Your task to perform on an android device: Open Google Maps and go to "Timeline" Image 0: 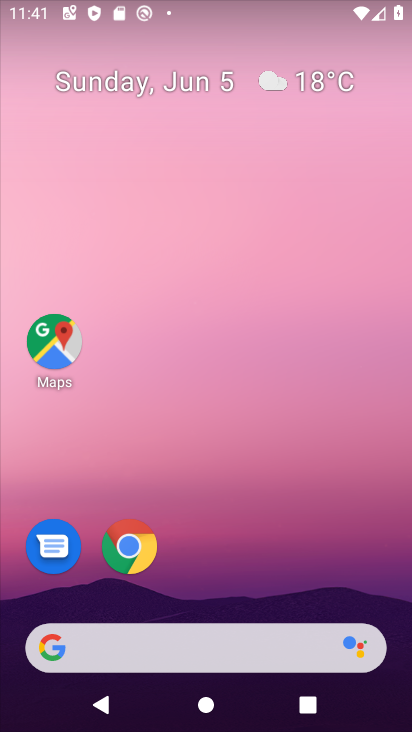
Step 0: click (54, 350)
Your task to perform on an android device: Open Google Maps and go to "Timeline" Image 1: 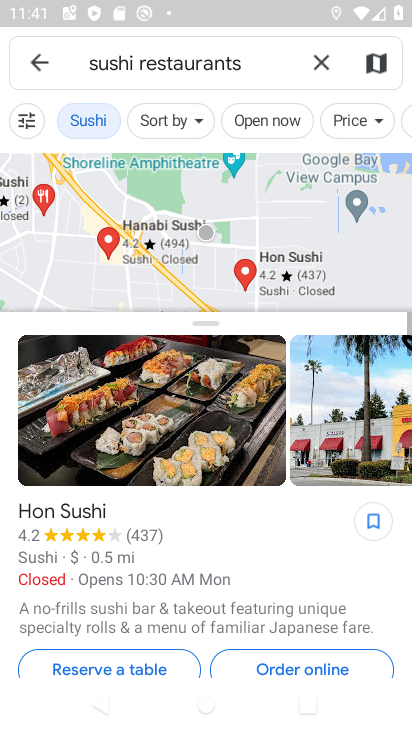
Step 1: click (32, 58)
Your task to perform on an android device: Open Google Maps and go to "Timeline" Image 2: 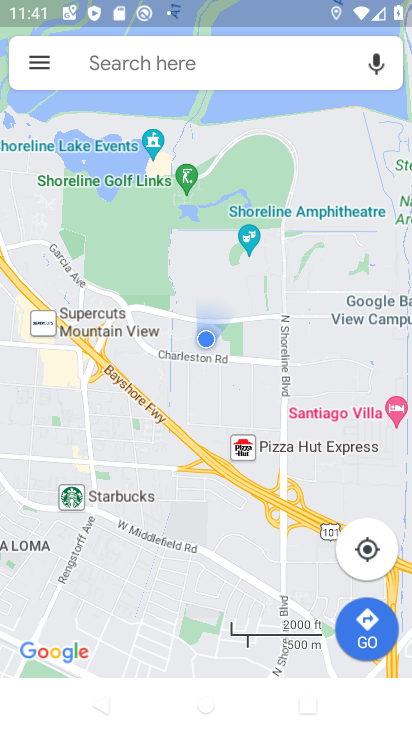
Step 2: click (37, 57)
Your task to perform on an android device: Open Google Maps and go to "Timeline" Image 3: 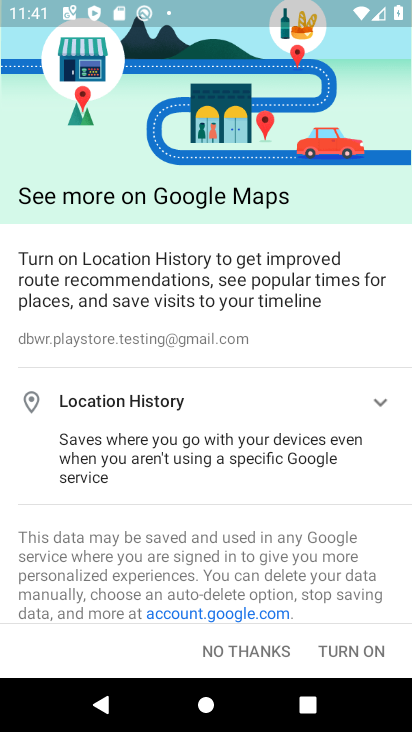
Step 3: click (280, 652)
Your task to perform on an android device: Open Google Maps and go to "Timeline" Image 4: 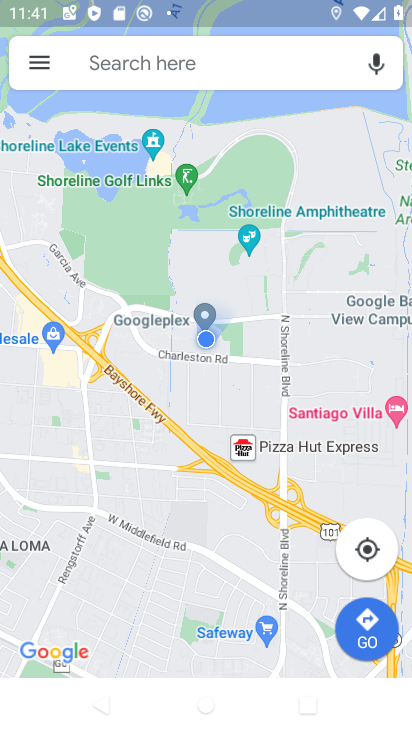
Step 4: click (41, 60)
Your task to perform on an android device: Open Google Maps and go to "Timeline" Image 5: 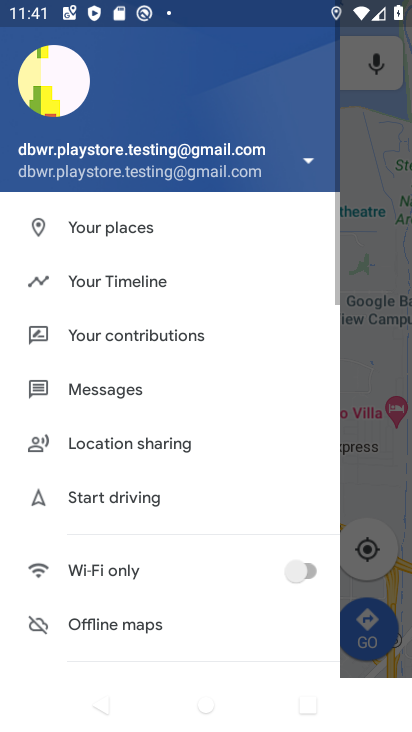
Step 5: click (137, 287)
Your task to perform on an android device: Open Google Maps and go to "Timeline" Image 6: 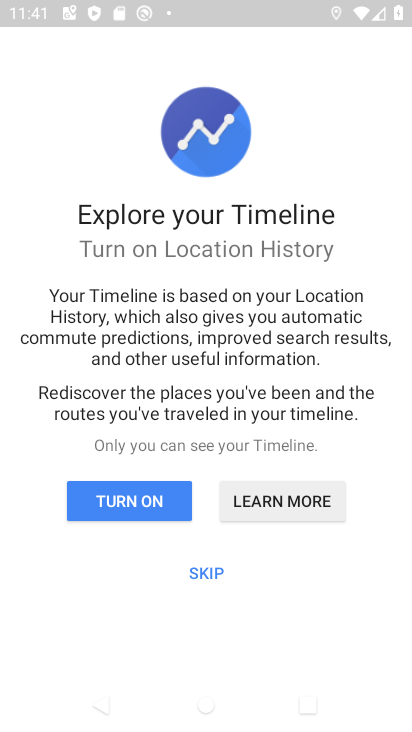
Step 6: click (206, 579)
Your task to perform on an android device: Open Google Maps and go to "Timeline" Image 7: 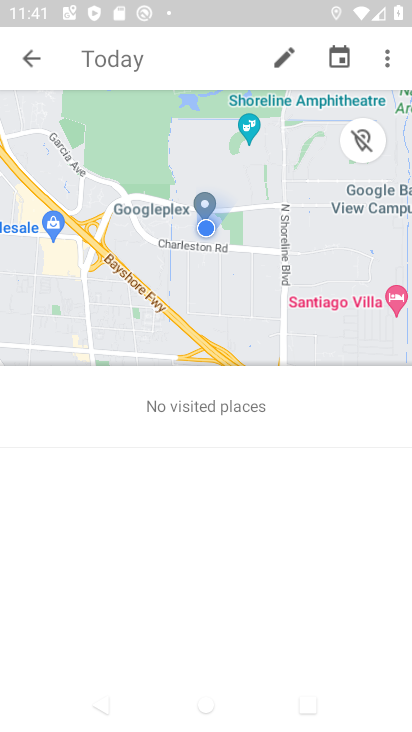
Step 7: task complete